Your task to perform on an android device: change notification settings in the gmail app Image 0: 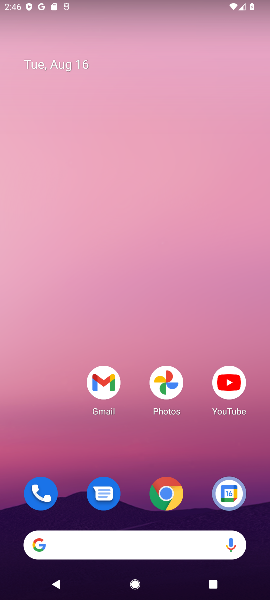
Step 0: press home button
Your task to perform on an android device: change notification settings in the gmail app Image 1: 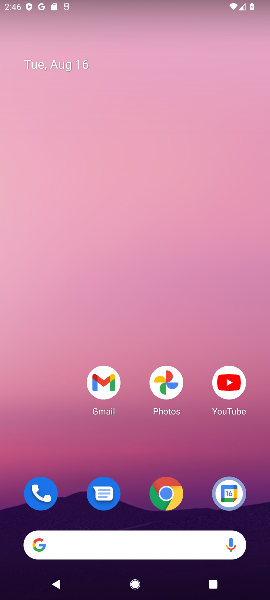
Step 1: drag from (60, 460) to (71, 87)
Your task to perform on an android device: change notification settings in the gmail app Image 2: 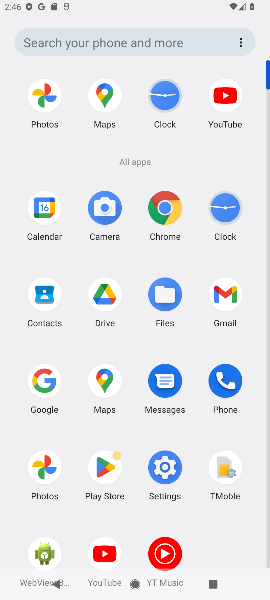
Step 2: click (222, 299)
Your task to perform on an android device: change notification settings in the gmail app Image 3: 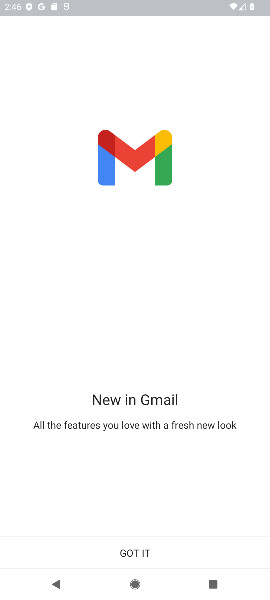
Step 3: click (131, 554)
Your task to perform on an android device: change notification settings in the gmail app Image 4: 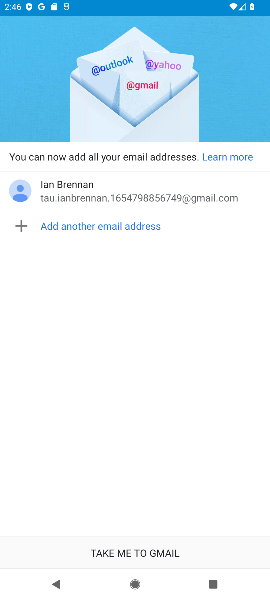
Step 4: click (131, 554)
Your task to perform on an android device: change notification settings in the gmail app Image 5: 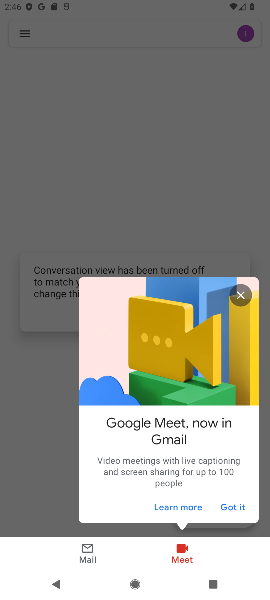
Step 5: click (233, 508)
Your task to perform on an android device: change notification settings in the gmail app Image 6: 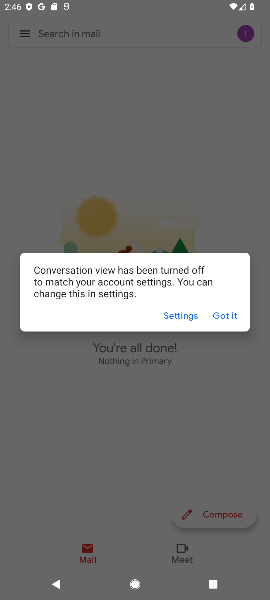
Step 6: click (221, 312)
Your task to perform on an android device: change notification settings in the gmail app Image 7: 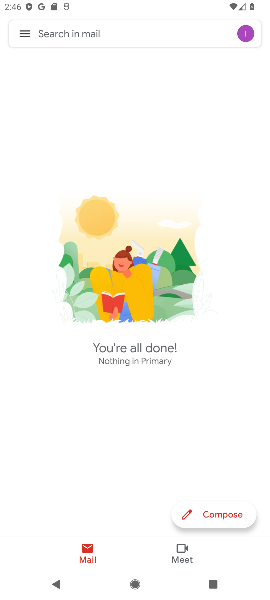
Step 7: click (25, 36)
Your task to perform on an android device: change notification settings in the gmail app Image 8: 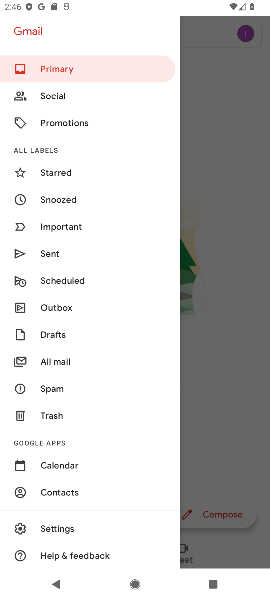
Step 8: click (108, 525)
Your task to perform on an android device: change notification settings in the gmail app Image 9: 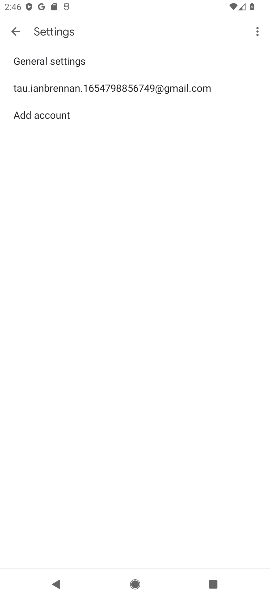
Step 9: click (141, 90)
Your task to perform on an android device: change notification settings in the gmail app Image 10: 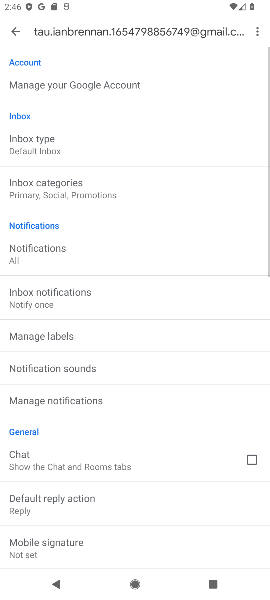
Step 10: drag from (204, 301) to (207, 239)
Your task to perform on an android device: change notification settings in the gmail app Image 11: 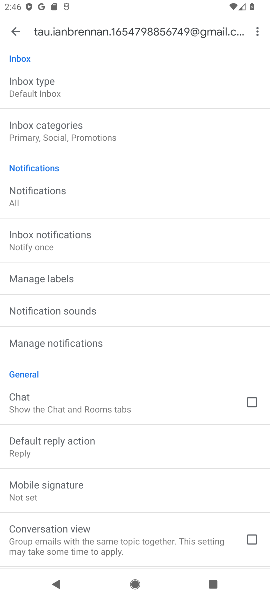
Step 11: drag from (201, 377) to (201, 240)
Your task to perform on an android device: change notification settings in the gmail app Image 12: 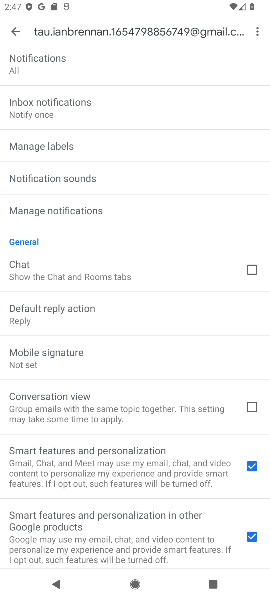
Step 12: drag from (166, 431) to (190, 271)
Your task to perform on an android device: change notification settings in the gmail app Image 13: 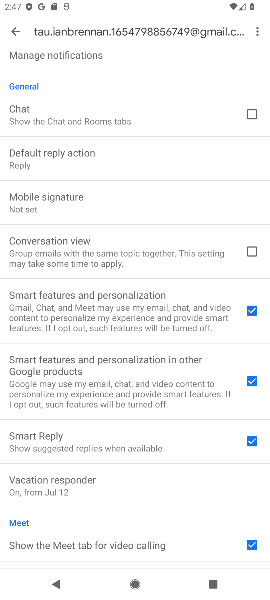
Step 13: drag from (173, 457) to (187, 321)
Your task to perform on an android device: change notification settings in the gmail app Image 14: 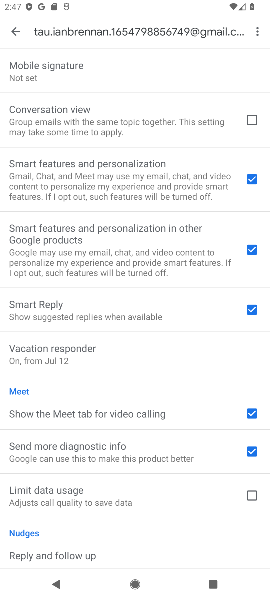
Step 14: drag from (179, 481) to (180, 333)
Your task to perform on an android device: change notification settings in the gmail app Image 15: 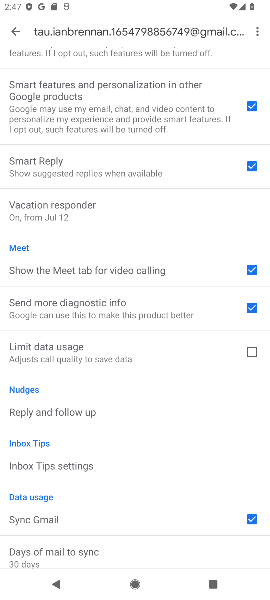
Step 15: drag from (166, 455) to (163, 336)
Your task to perform on an android device: change notification settings in the gmail app Image 16: 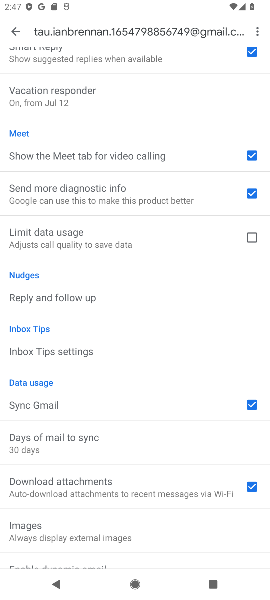
Step 16: drag from (146, 441) to (166, 303)
Your task to perform on an android device: change notification settings in the gmail app Image 17: 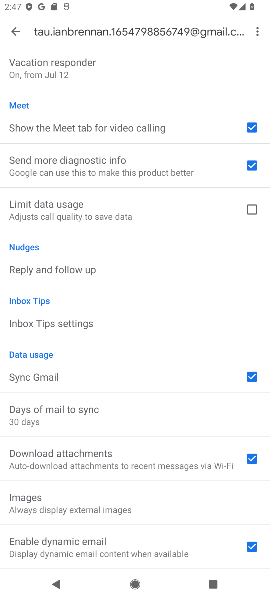
Step 17: drag from (177, 237) to (196, 382)
Your task to perform on an android device: change notification settings in the gmail app Image 18: 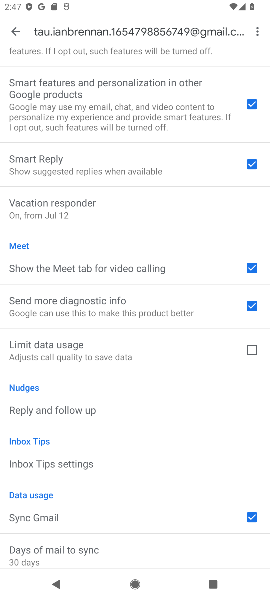
Step 18: drag from (186, 226) to (202, 320)
Your task to perform on an android device: change notification settings in the gmail app Image 19: 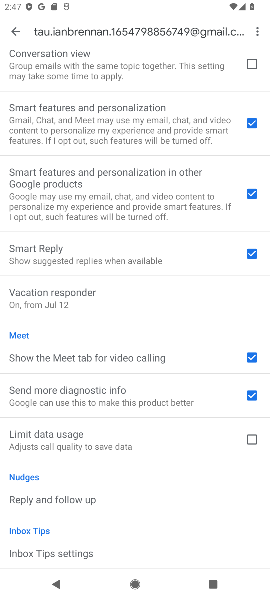
Step 19: drag from (203, 174) to (200, 288)
Your task to perform on an android device: change notification settings in the gmail app Image 20: 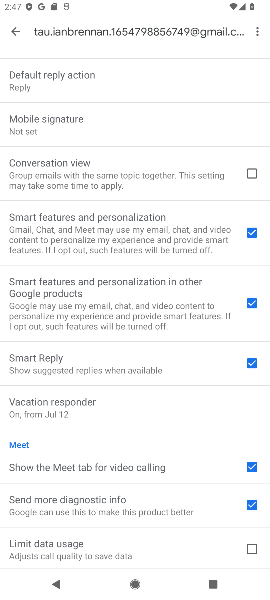
Step 20: drag from (170, 171) to (170, 286)
Your task to perform on an android device: change notification settings in the gmail app Image 21: 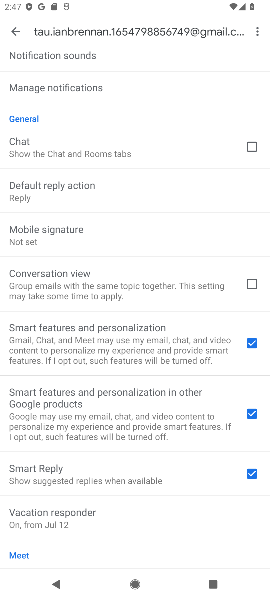
Step 21: drag from (174, 139) to (174, 241)
Your task to perform on an android device: change notification settings in the gmail app Image 22: 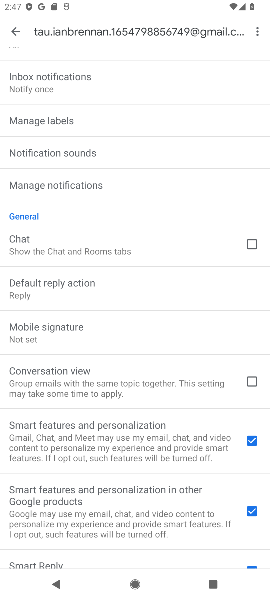
Step 22: drag from (169, 142) to (178, 276)
Your task to perform on an android device: change notification settings in the gmail app Image 23: 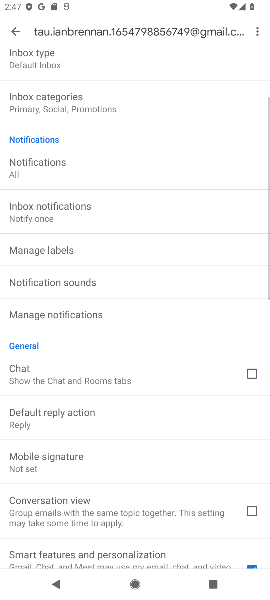
Step 23: drag from (174, 124) to (181, 293)
Your task to perform on an android device: change notification settings in the gmail app Image 24: 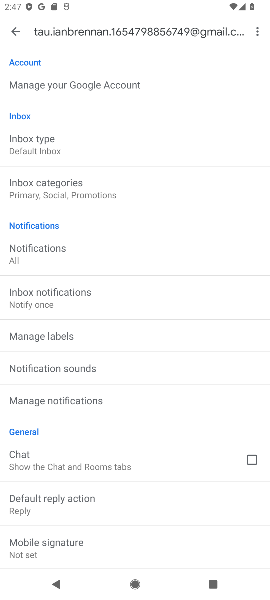
Step 24: click (67, 249)
Your task to perform on an android device: change notification settings in the gmail app Image 25: 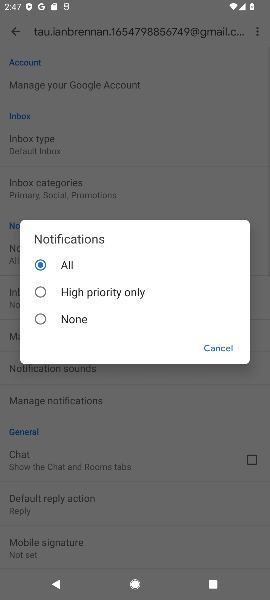
Step 25: click (77, 287)
Your task to perform on an android device: change notification settings in the gmail app Image 26: 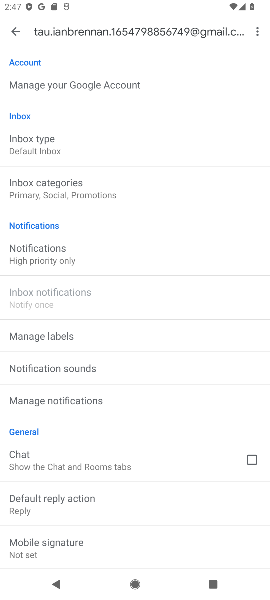
Step 26: task complete